Your task to perform on an android device: change notification settings in the gmail app Image 0: 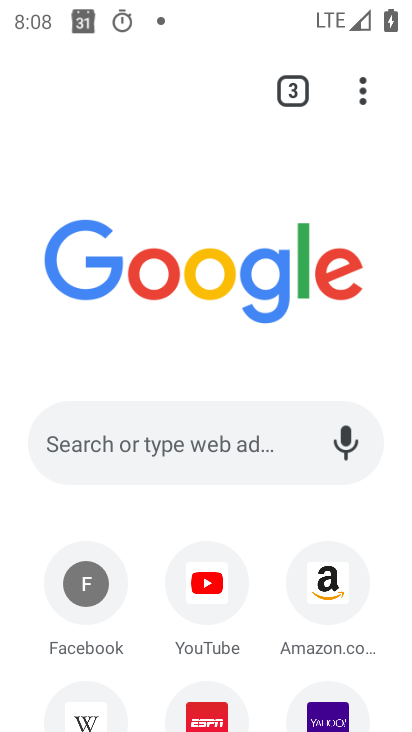
Step 0: press home button
Your task to perform on an android device: change notification settings in the gmail app Image 1: 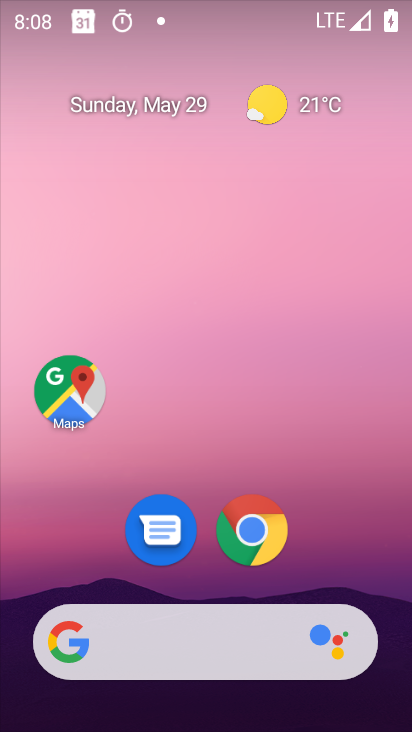
Step 1: drag from (304, 663) to (282, 225)
Your task to perform on an android device: change notification settings in the gmail app Image 2: 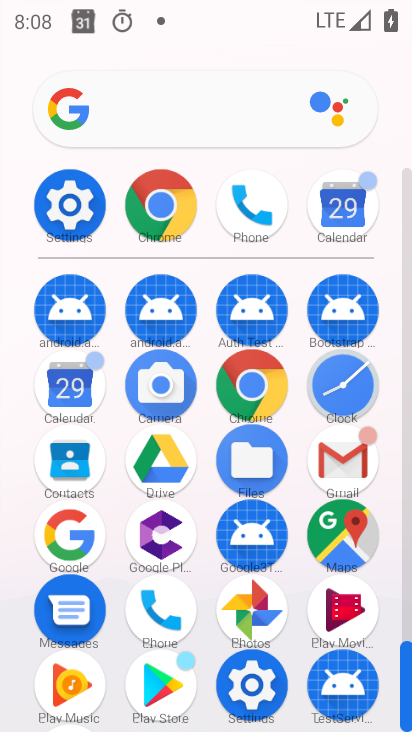
Step 2: click (71, 218)
Your task to perform on an android device: change notification settings in the gmail app Image 3: 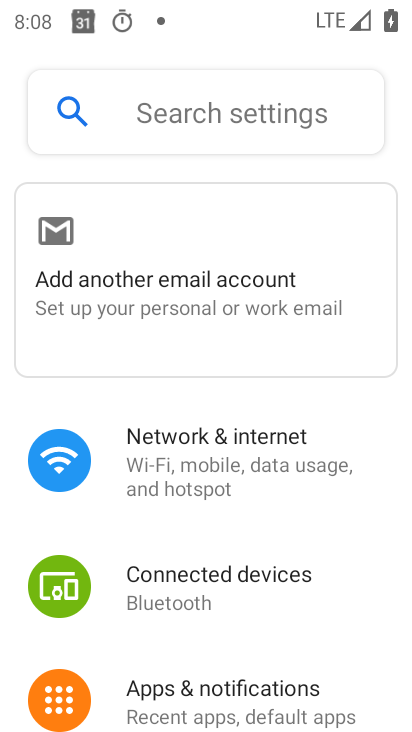
Step 3: click (179, 135)
Your task to perform on an android device: change notification settings in the gmail app Image 4: 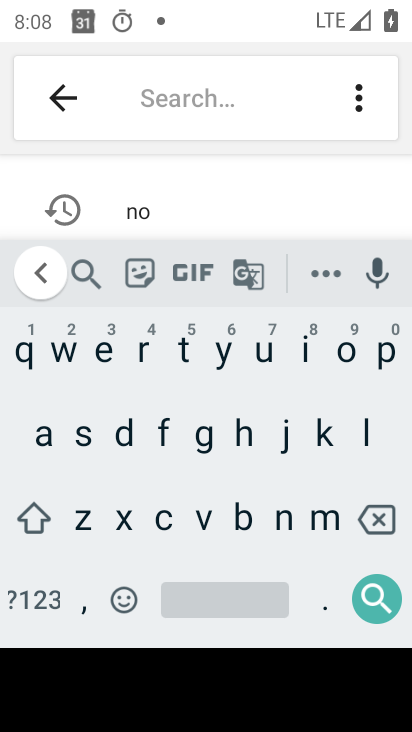
Step 4: click (284, 528)
Your task to perform on an android device: change notification settings in the gmail app Image 5: 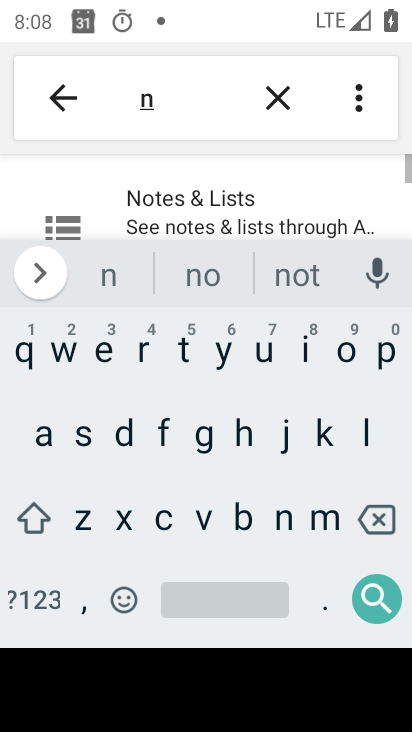
Step 5: click (347, 358)
Your task to perform on an android device: change notification settings in the gmail app Image 6: 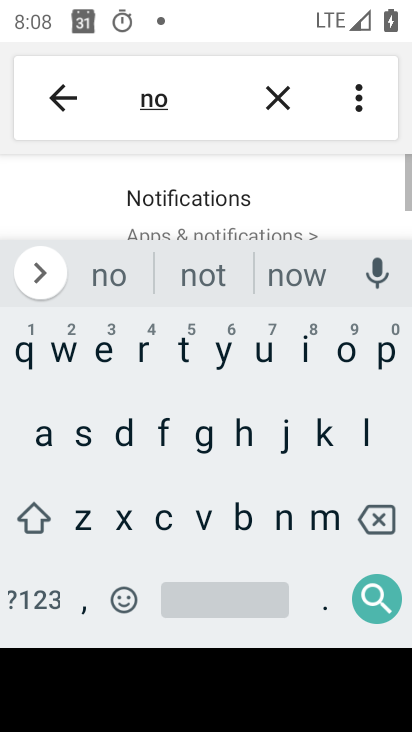
Step 6: click (197, 201)
Your task to perform on an android device: change notification settings in the gmail app Image 7: 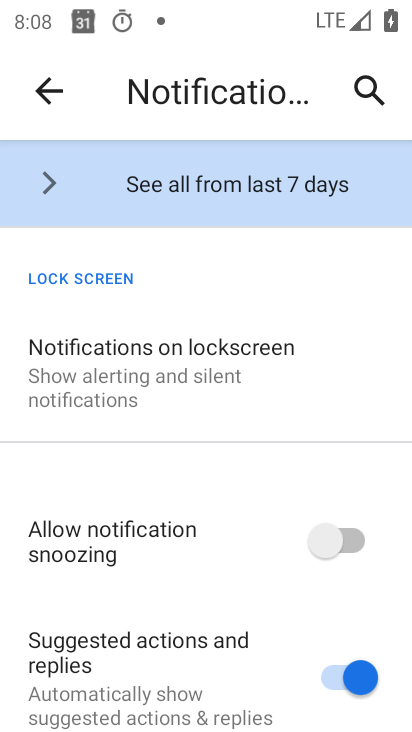
Step 7: click (79, 371)
Your task to perform on an android device: change notification settings in the gmail app Image 8: 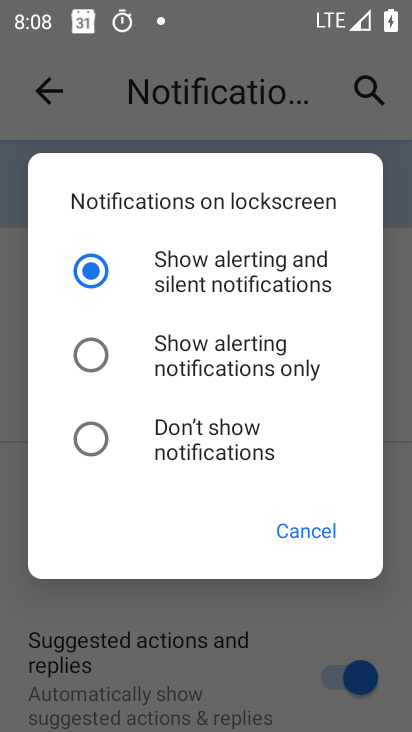
Step 8: task complete